Your task to perform on an android device: open app "Adobe Express: Graphic Design" (install if not already installed) Image 0: 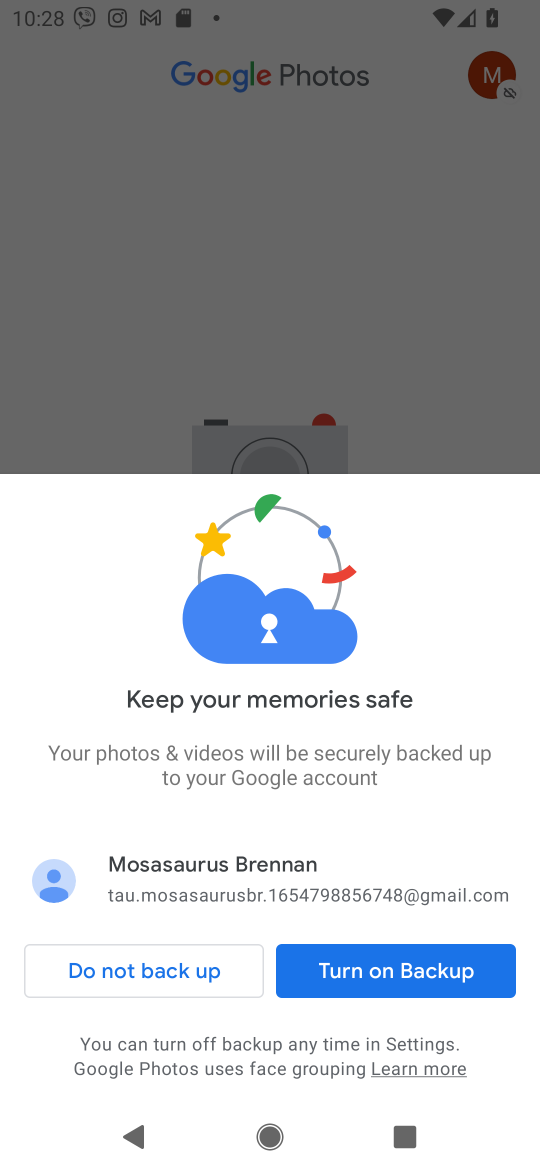
Step 0: press home button
Your task to perform on an android device: open app "Adobe Express: Graphic Design" (install if not already installed) Image 1: 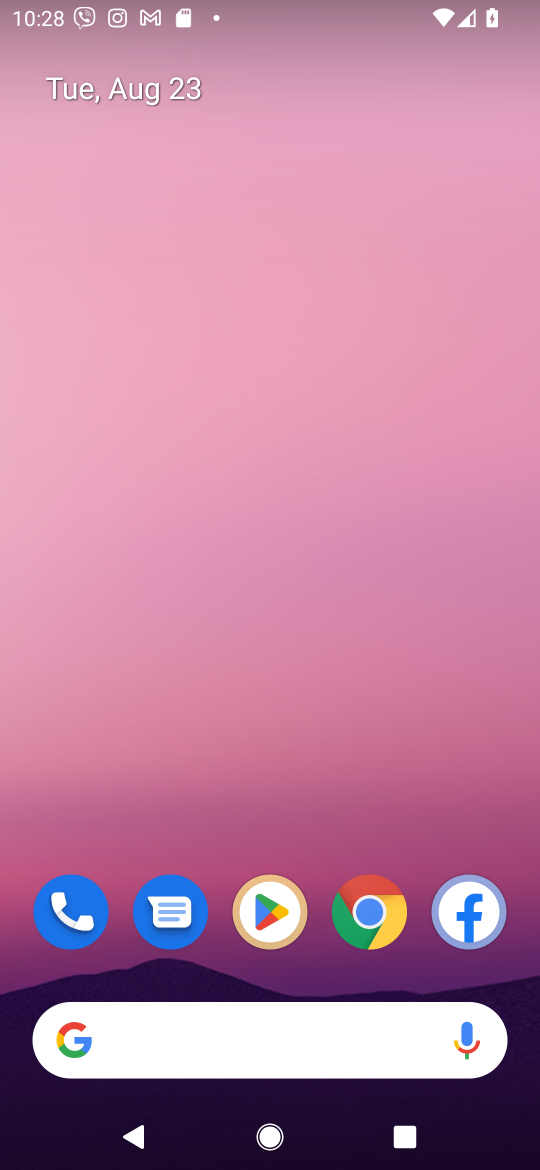
Step 1: click (272, 927)
Your task to perform on an android device: open app "Adobe Express: Graphic Design" (install if not already installed) Image 2: 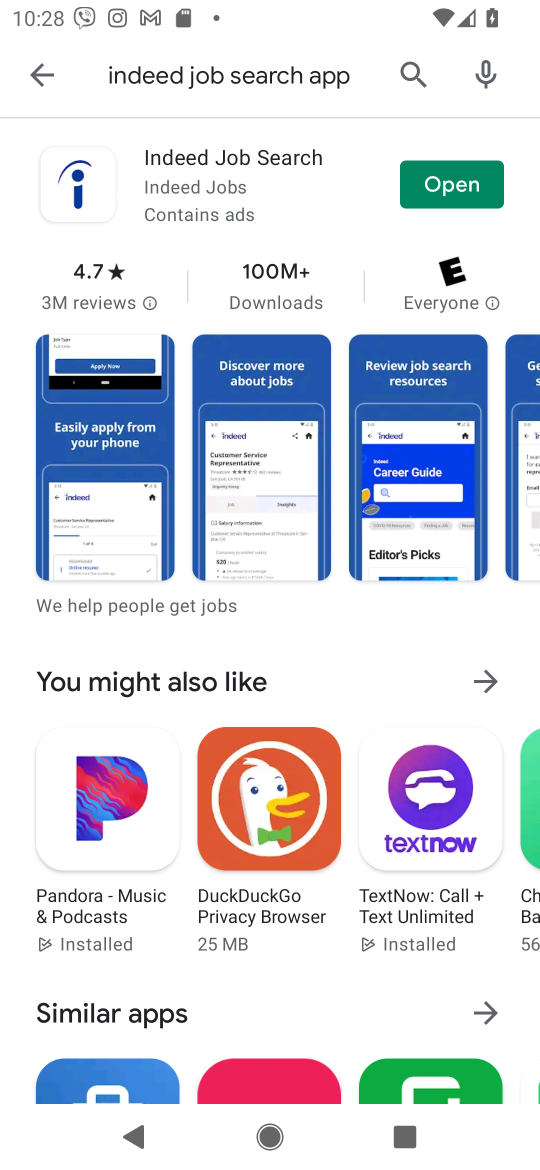
Step 2: click (415, 67)
Your task to perform on an android device: open app "Adobe Express: Graphic Design" (install if not already installed) Image 3: 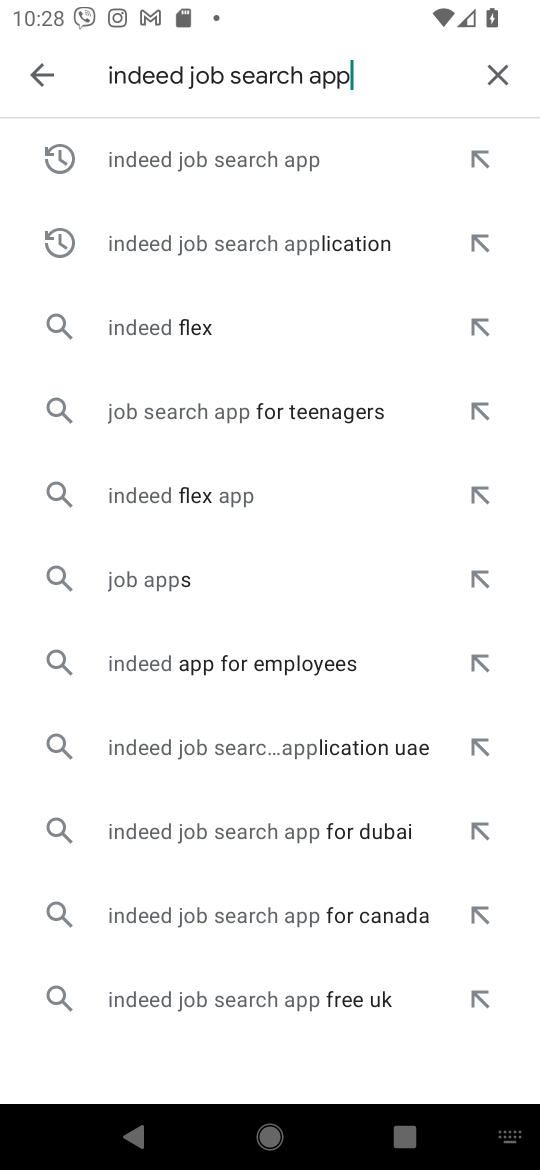
Step 3: click (498, 73)
Your task to perform on an android device: open app "Adobe Express: Graphic Design" (install if not already installed) Image 4: 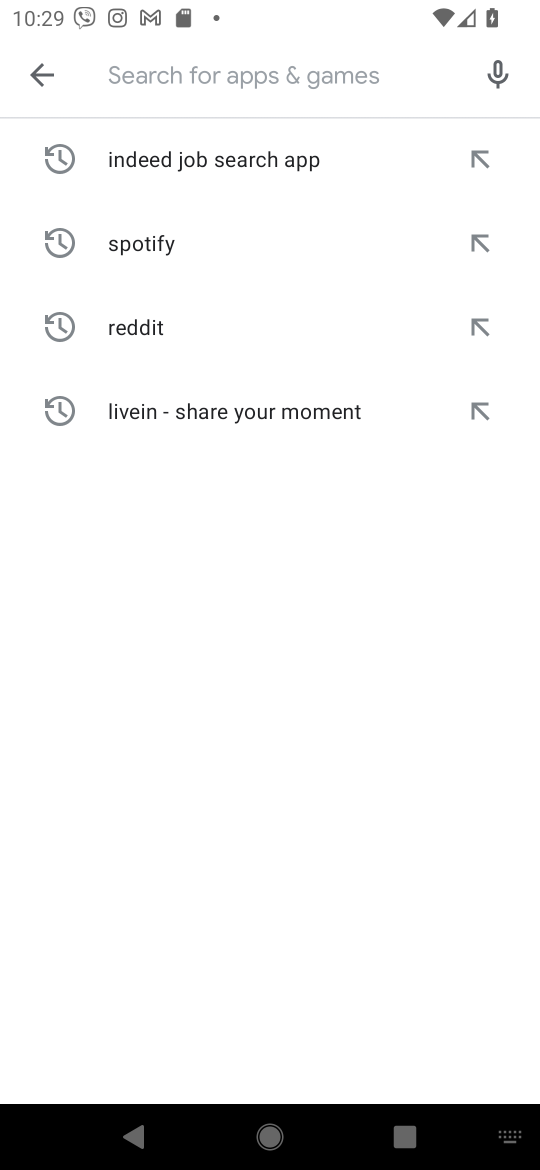
Step 4: type "Adobe Express: Graphic Design"
Your task to perform on an android device: open app "Adobe Express: Graphic Design" (install if not already installed) Image 5: 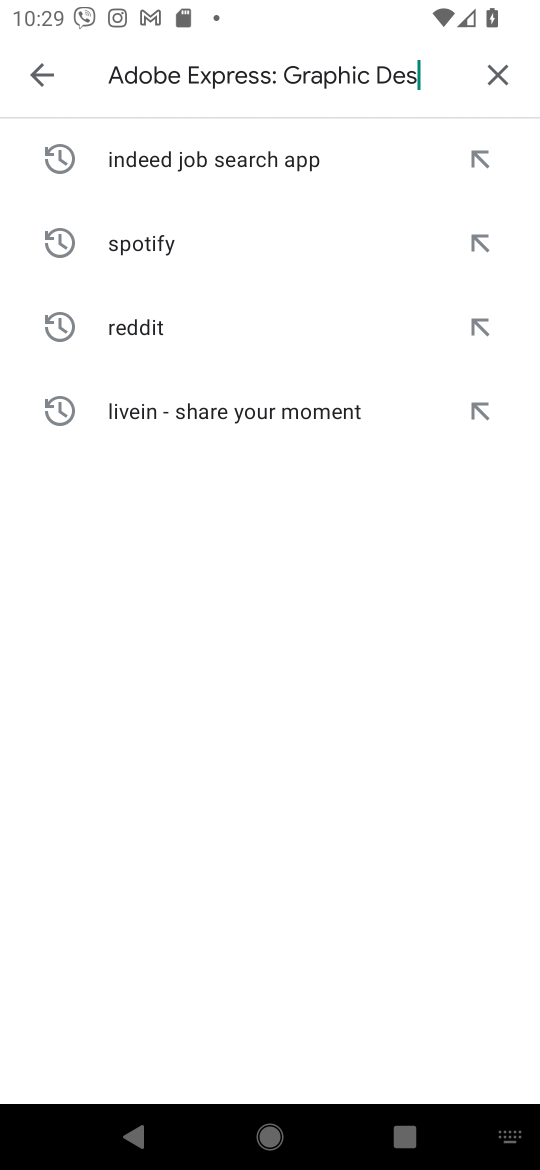
Step 5: type ""
Your task to perform on an android device: open app "Adobe Express: Graphic Design" (install if not already installed) Image 6: 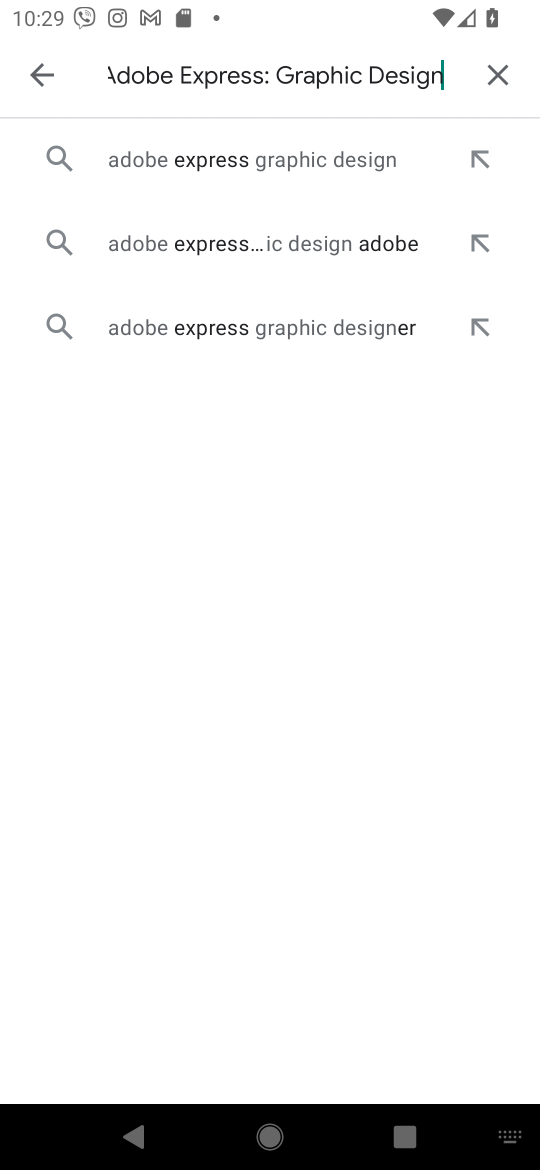
Step 6: click (288, 160)
Your task to perform on an android device: open app "Adobe Express: Graphic Design" (install if not already installed) Image 7: 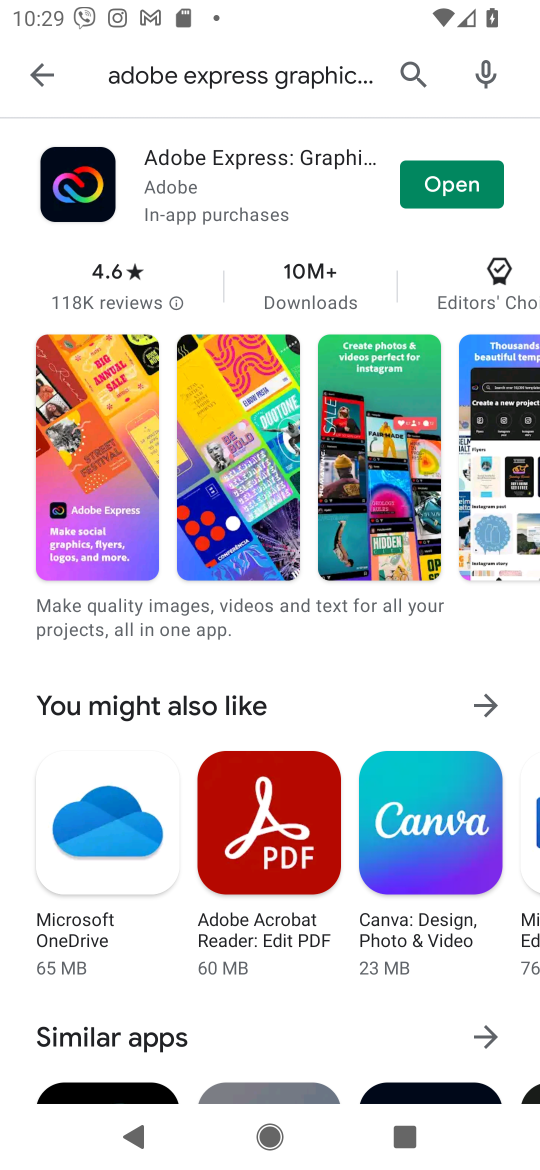
Step 7: click (457, 184)
Your task to perform on an android device: open app "Adobe Express: Graphic Design" (install if not already installed) Image 8: 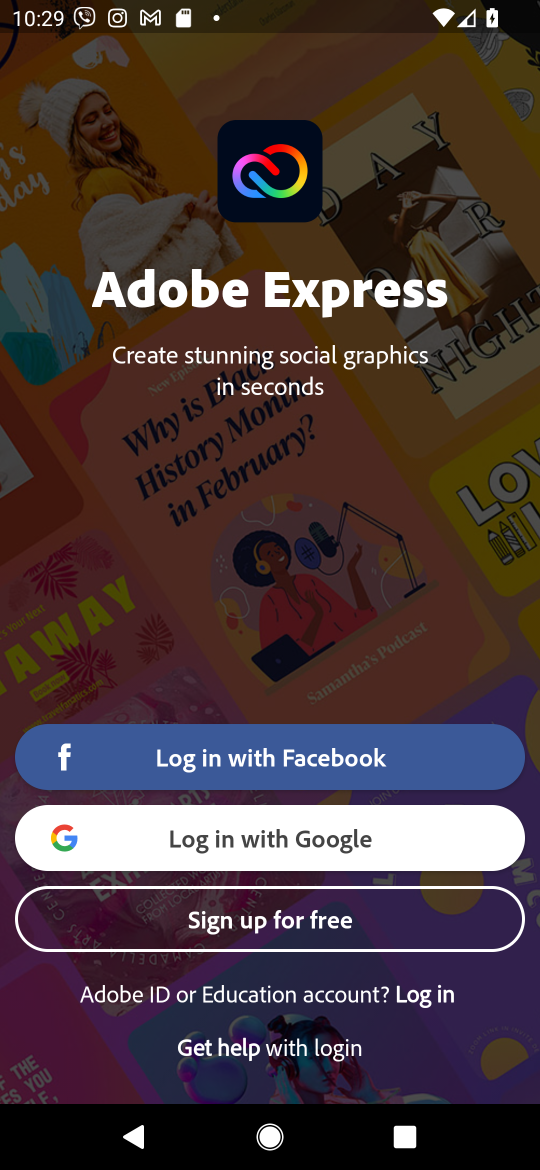
Step 8: task complete